Your task to perform on an android device: turn off airplane mode Image 0: 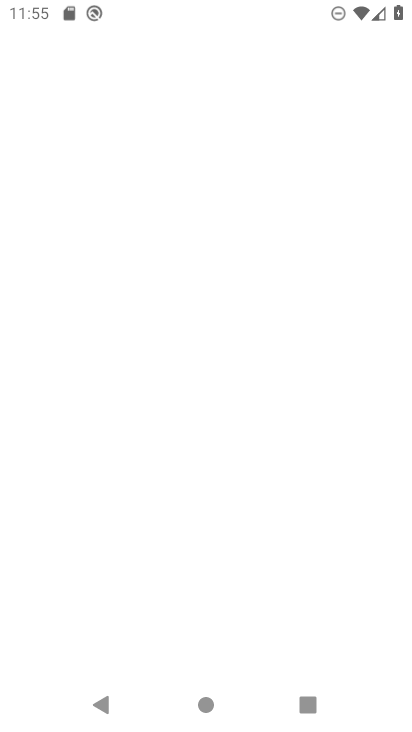
Step 0: drag from (224, 724) to (255, 102)
Your task to perform on an android device: turn off airplane mode Image 1: 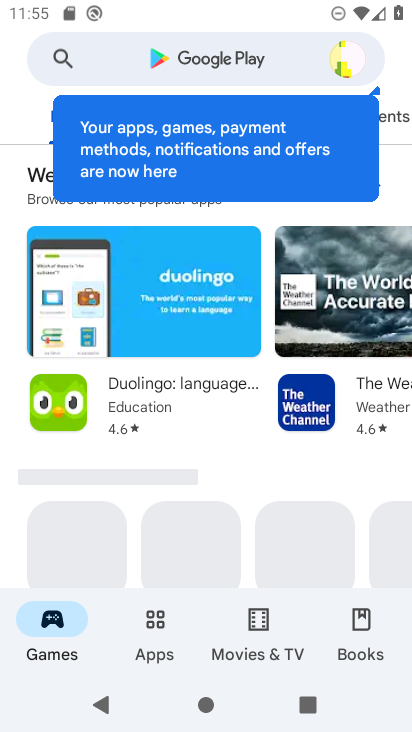
Step 1: press home button
Your task to perform on an android device: turn off airplane mode Image 2: 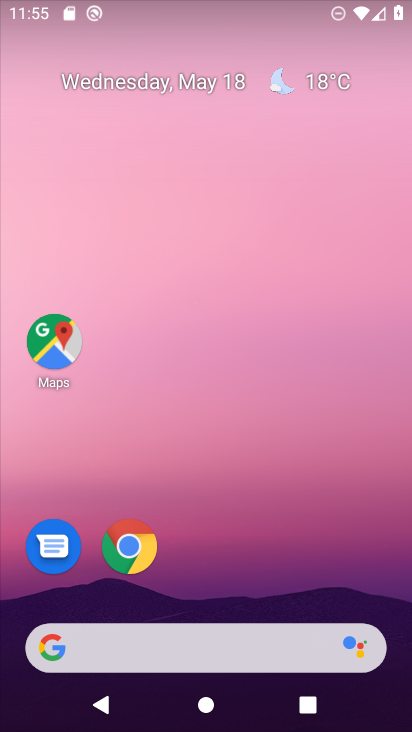
Step 2: drag from (244, 728) to (283, 279)
Your task to perform on an android device: turn off airplane mode Image 3: 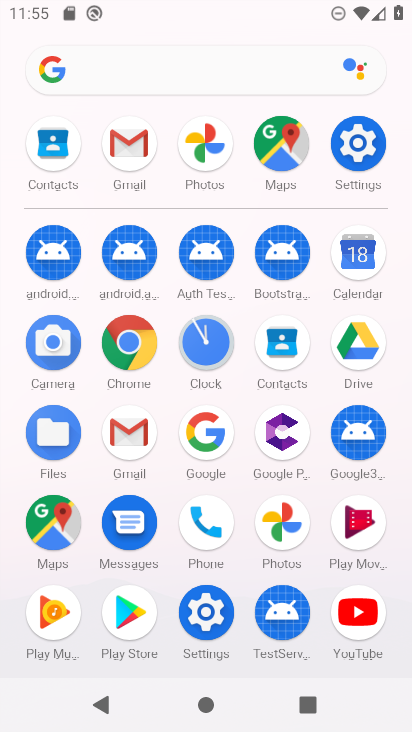
Step 3: click (367, 143)
Your task to perform on an android device: turn off airplane mode Image 4: 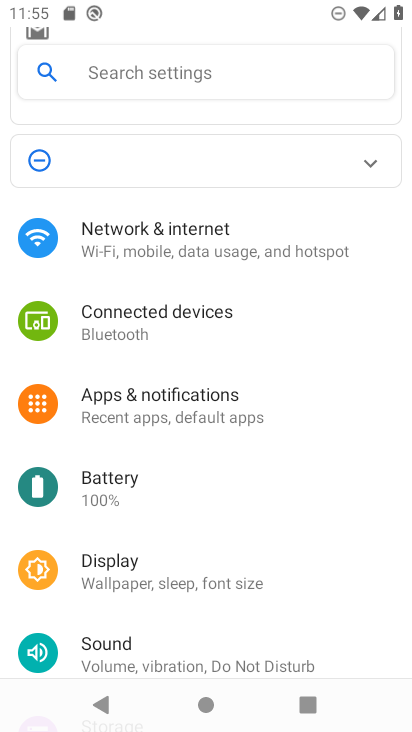
Step 4: click (172, 245)
Your task to perform on an android device: turn off airplane mode Image 5: 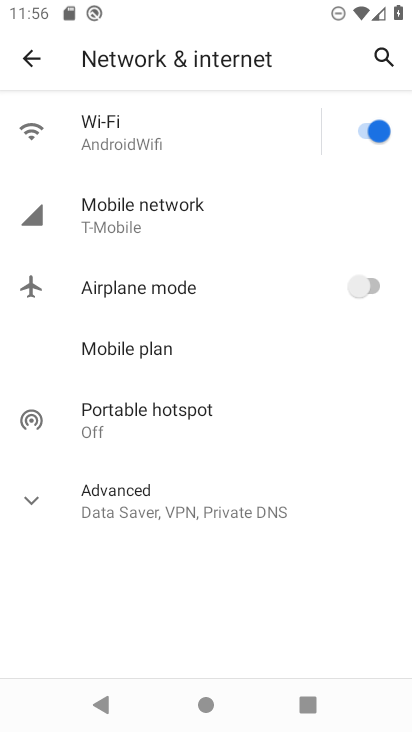
Step 5: task complete